Your task to perform on an android device: Search for hotels in NYC Image 0: 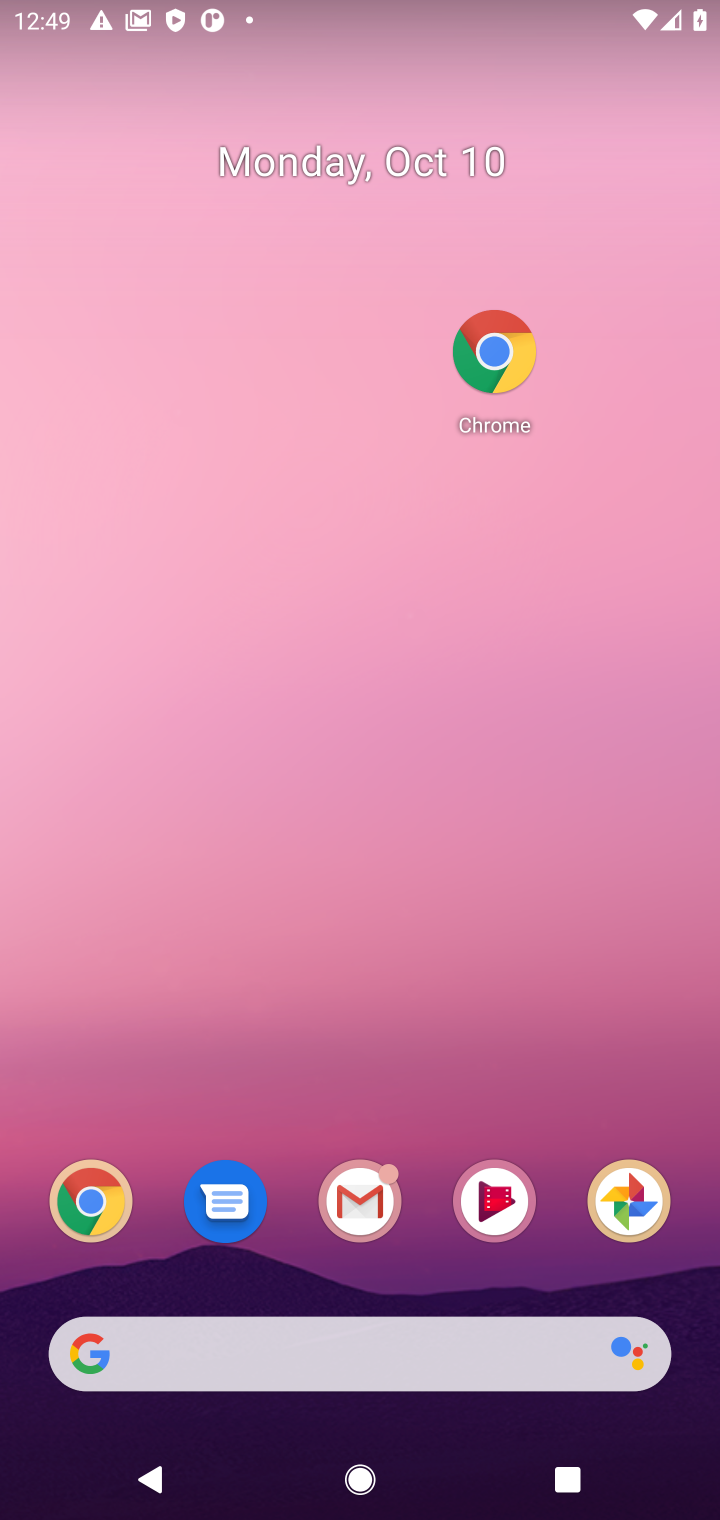
Step 0: click (302, 1369)
Your task to perform on an android device: Search for hotels in NYC Image 1: 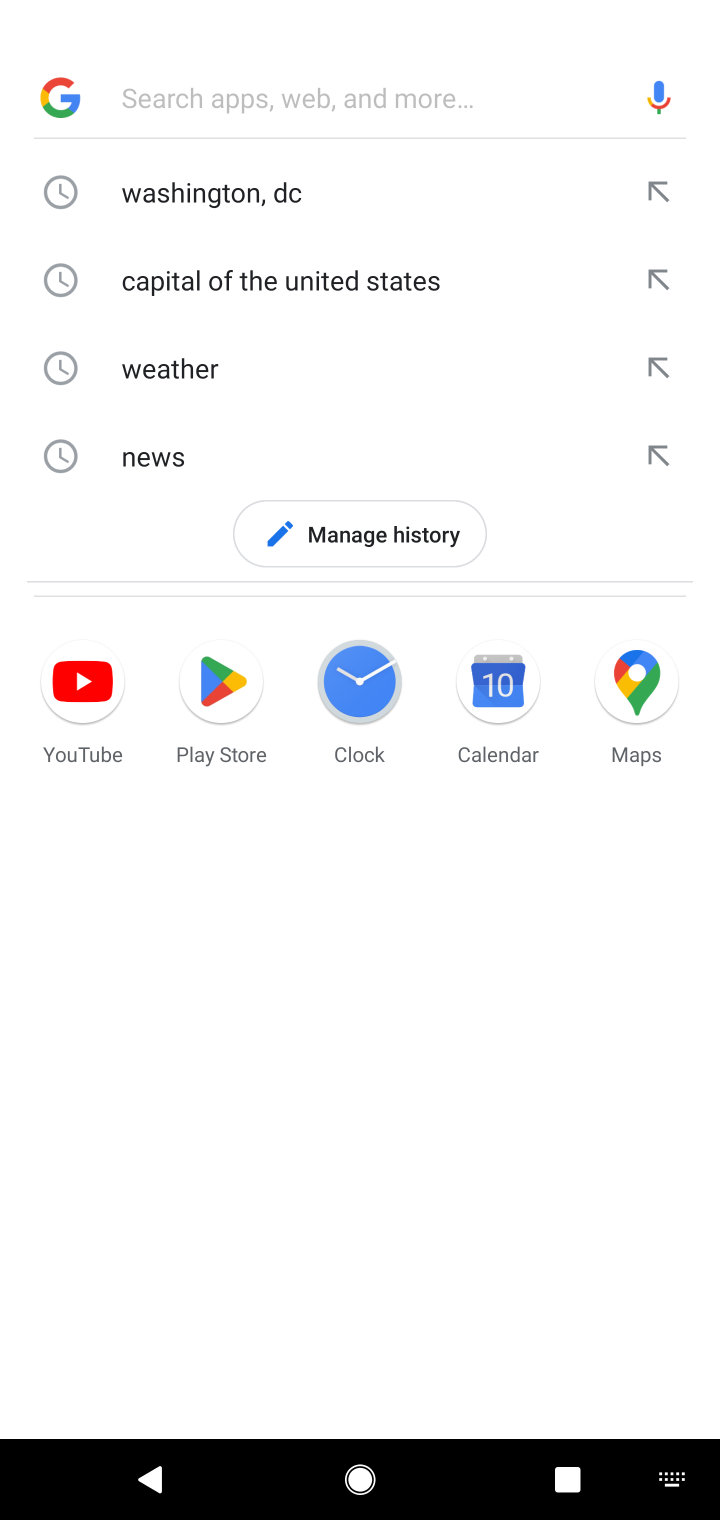
Step 1: click (227, 112)
Your task to perform on an android device: Search for hotels in NYC Image 2: 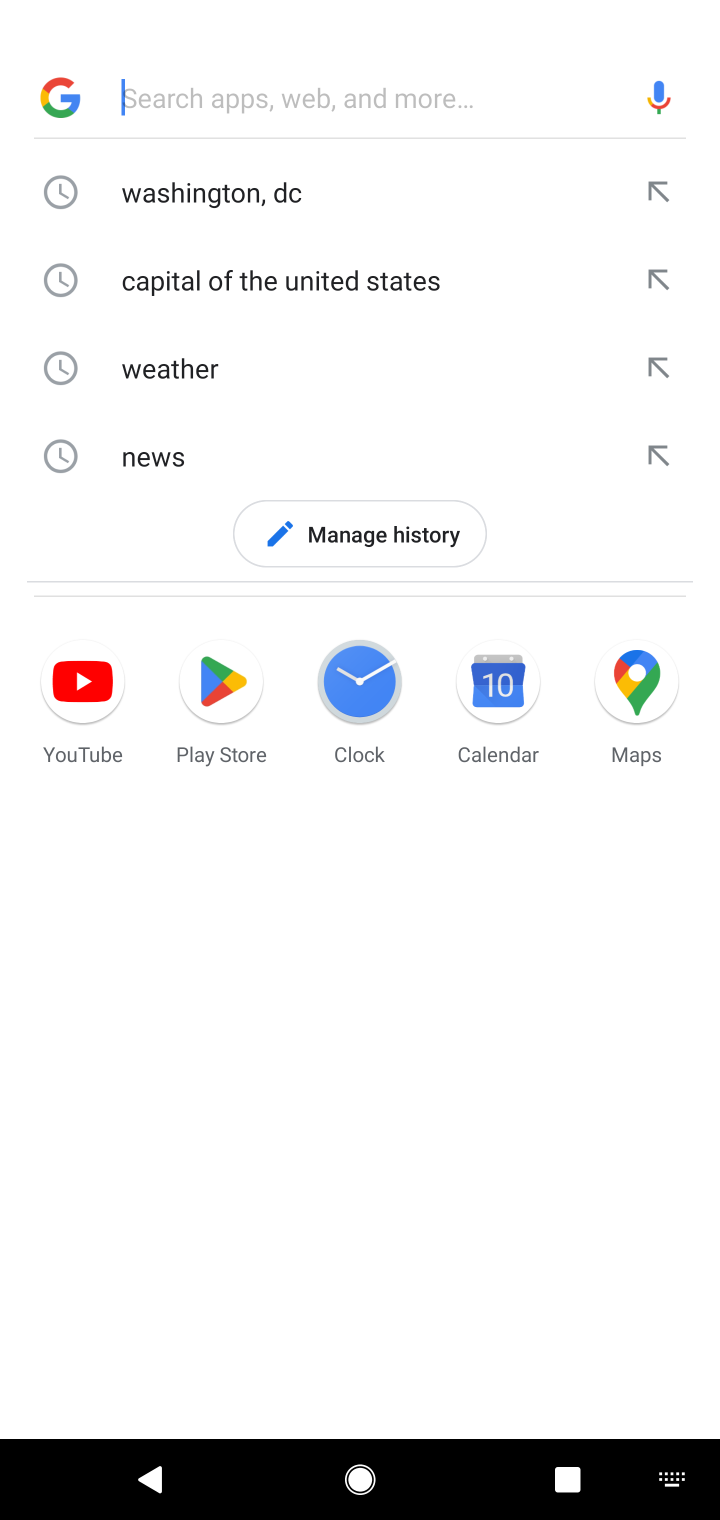
Step 2: type "hotels in NYC"
Your task to perform on an android device: Search for hotels in NYC Image 3: 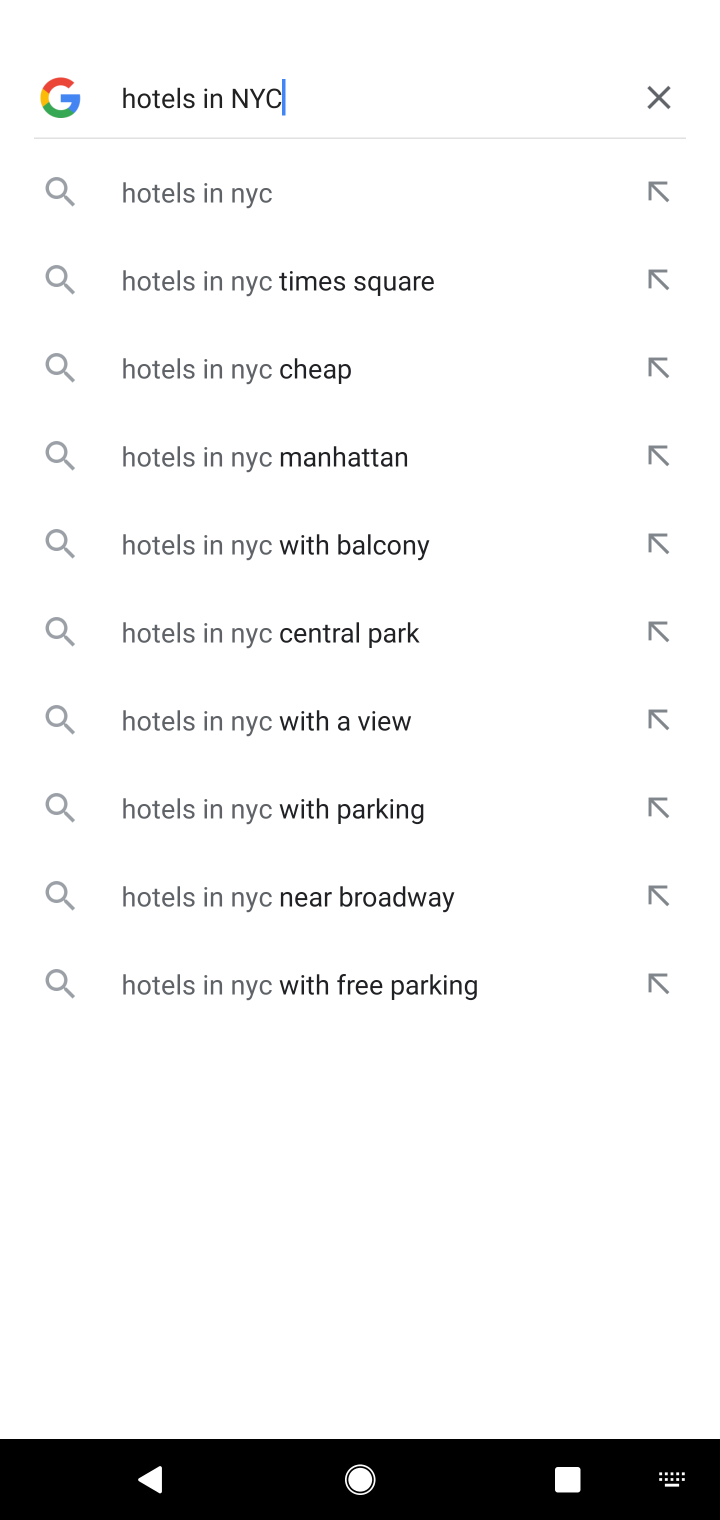
Step 3: click (197, 204)
Your task to perform on an android device: Search for hotels in NYC Image 4: 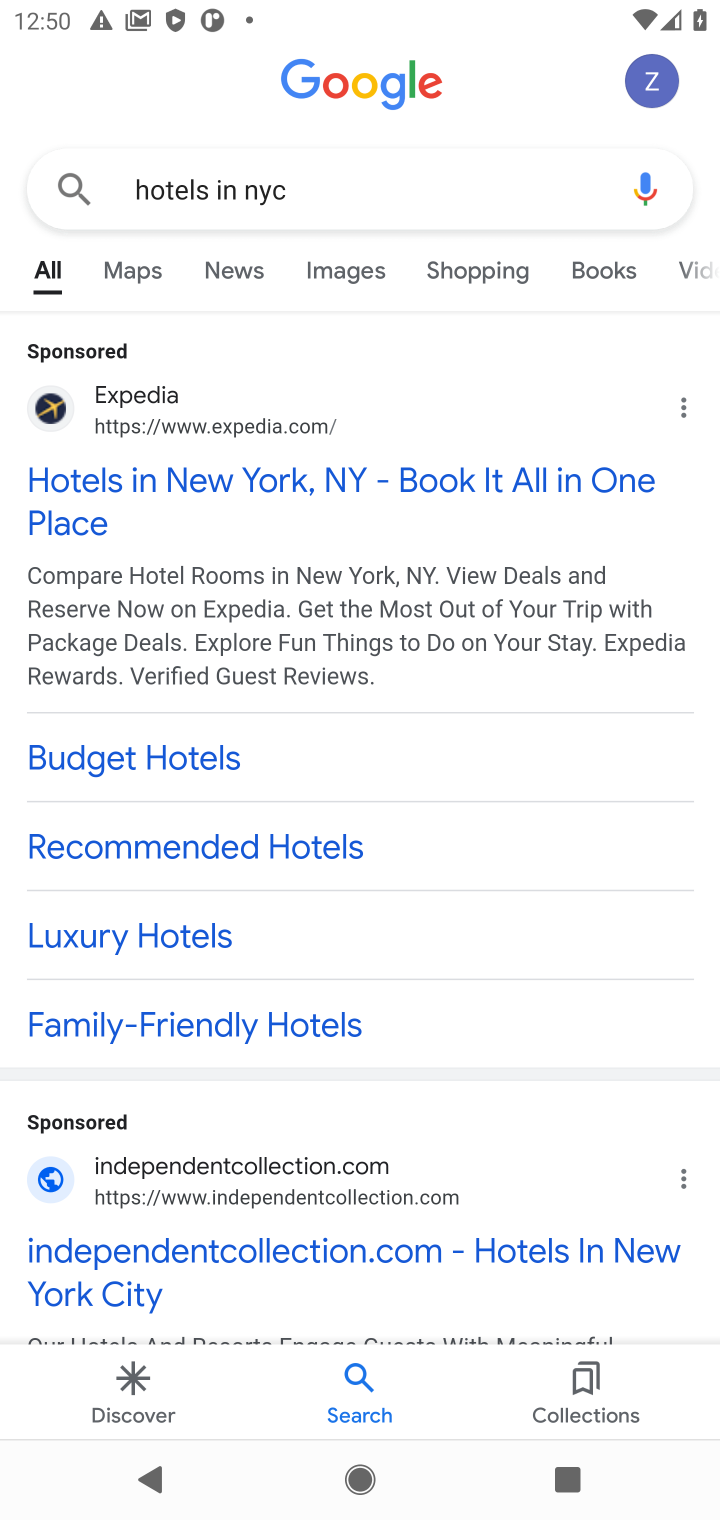
Step 4: drag from (353, 869) to (353, 495)
Your task to perform on an android device: Search for hotels in NYC Image 5: 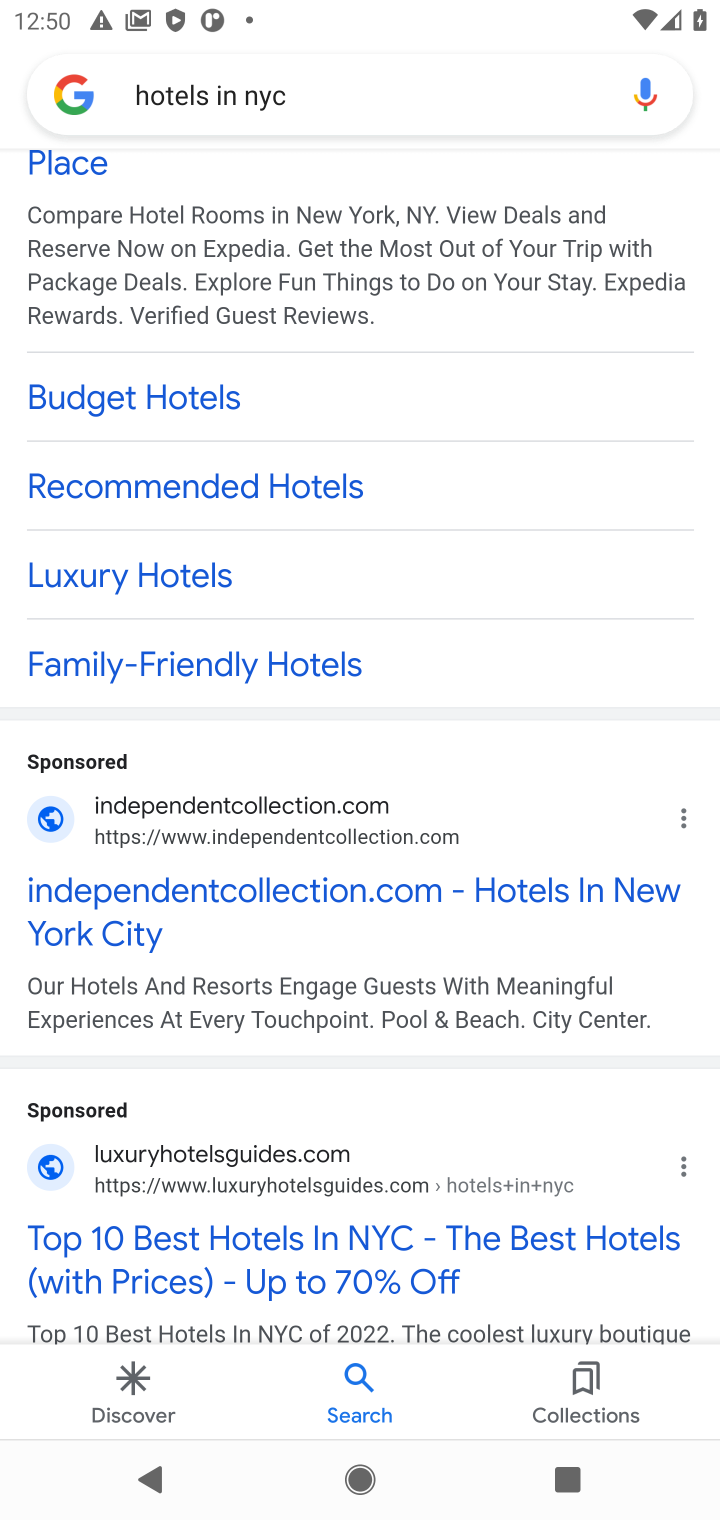
Step 5: drag from (380, 637) to (333, 1034)
Your task to perform on an android device: Search for hotels in NYC Image 6: 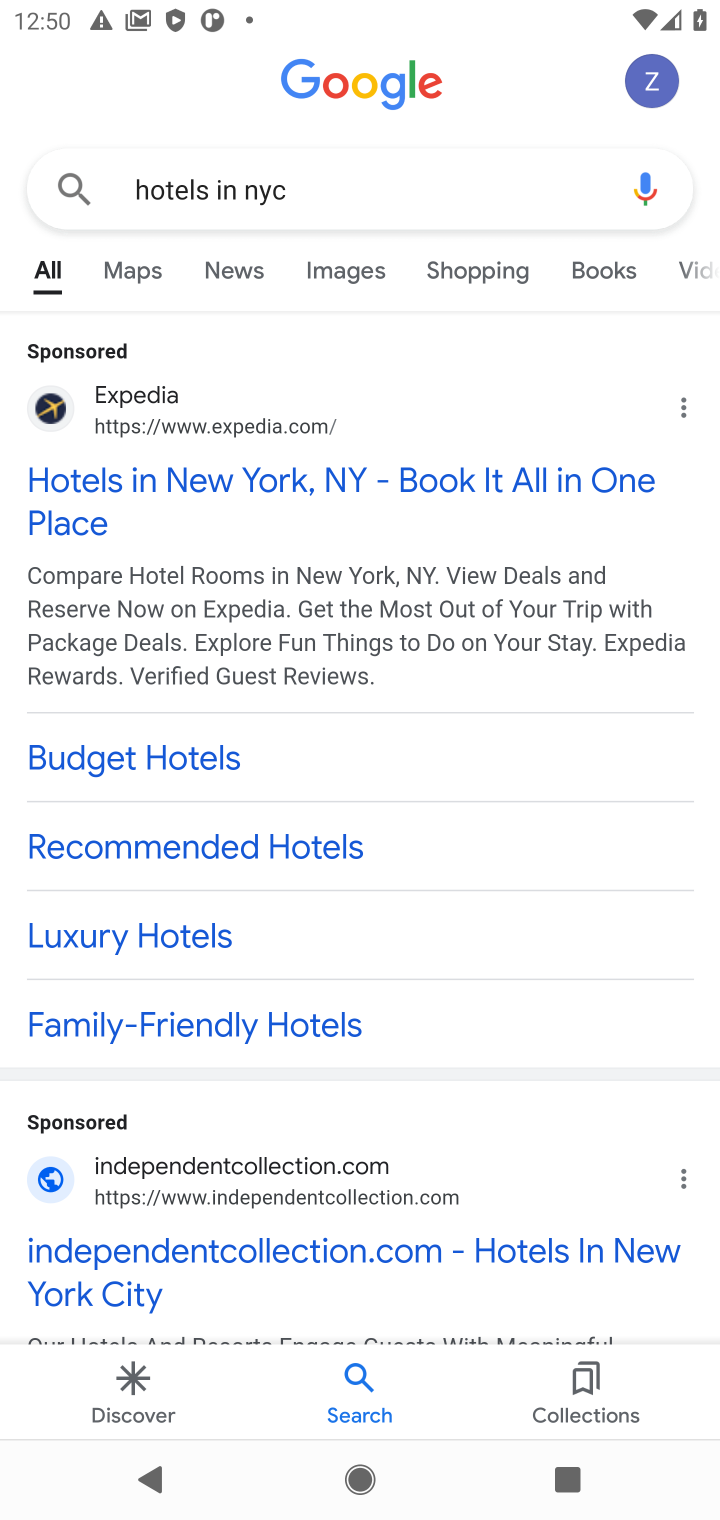
Step 6: click (210, 485)
Your task to perform on an android device: Search for hotels in NYC Image 7: 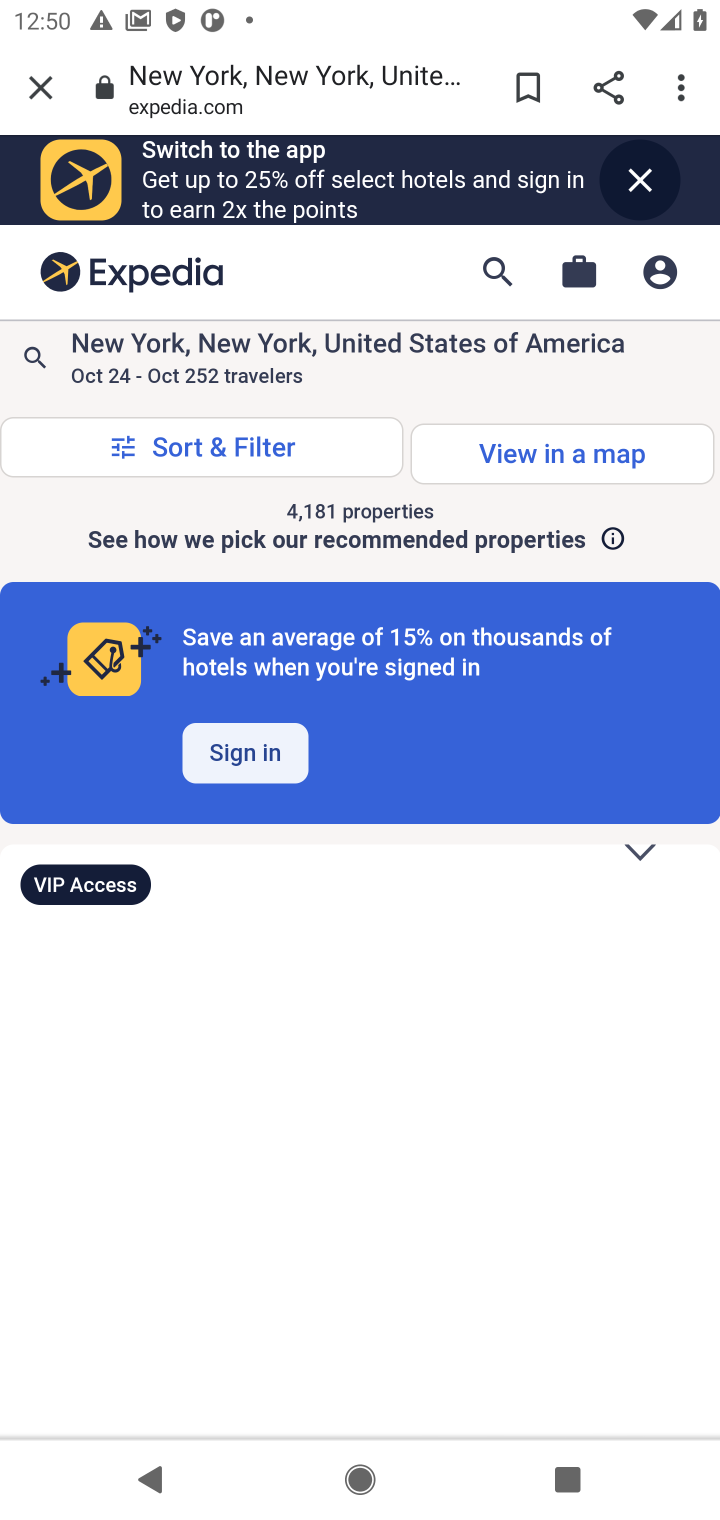
Step 7: task complete